Your task to perform on an android device: Open the web browser Image 0: 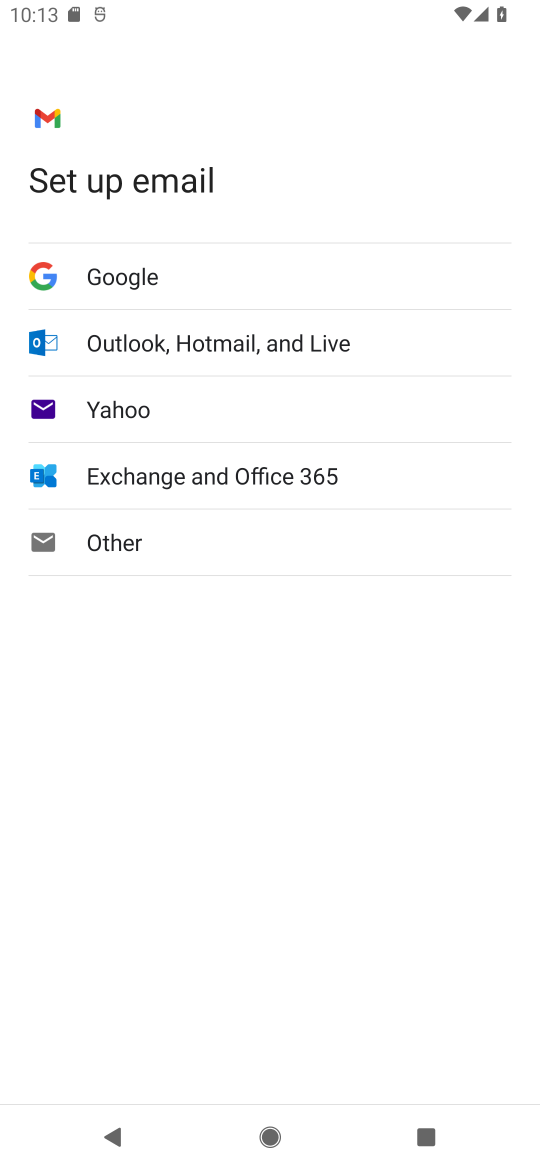
Step 0: press home button
Your task to perform on an android device: Open the web browser Image 1: 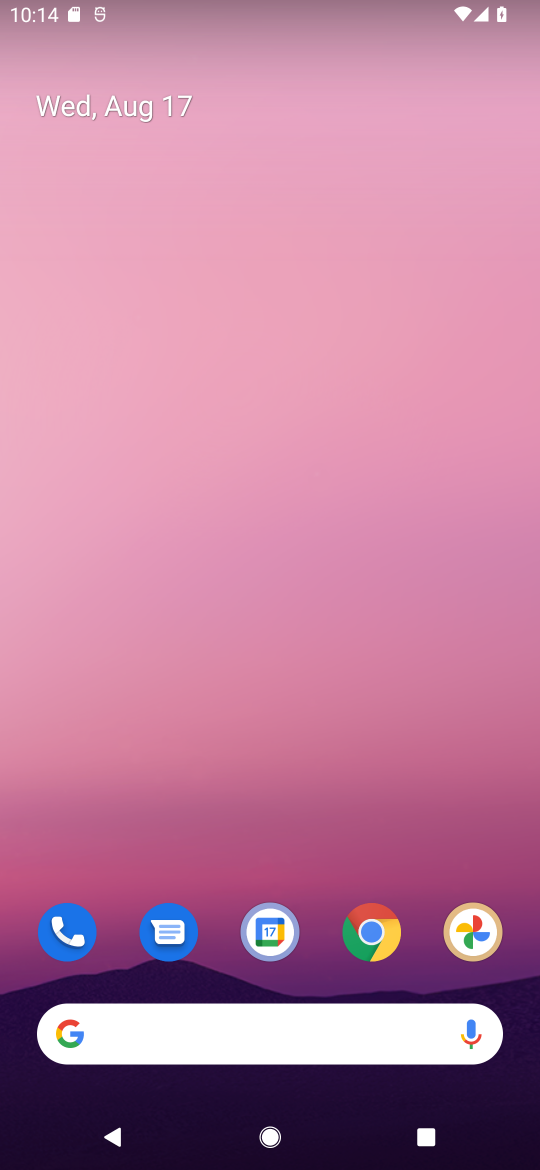
Step 1: click (366, 931)
Your task to perform on an android device: Open the web browser Image 2: 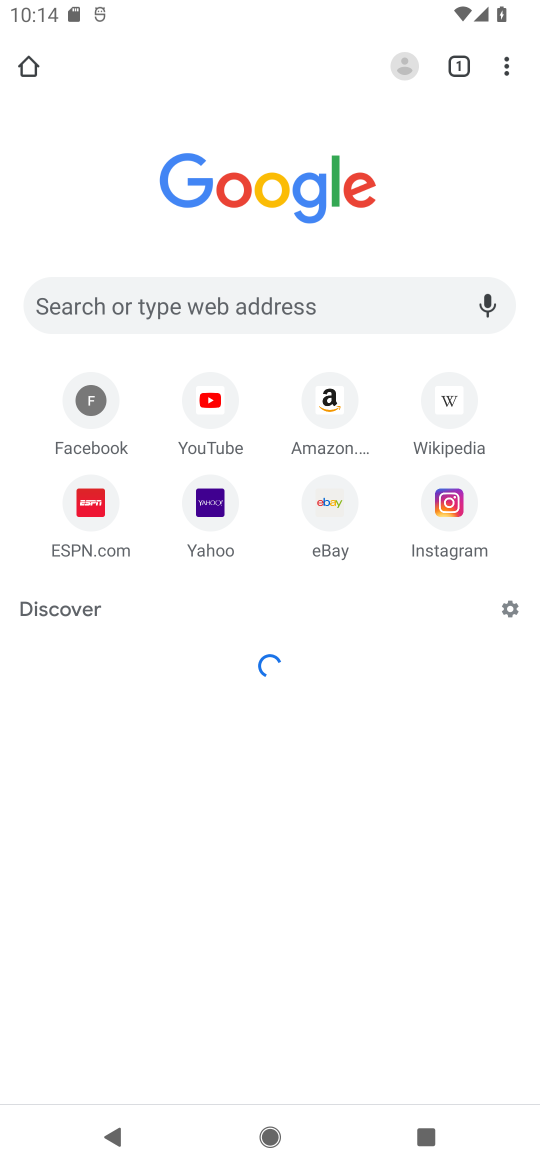
Step 2: task complete